Your task to perform on an android device: open a new tab in the chrome app Image 0: 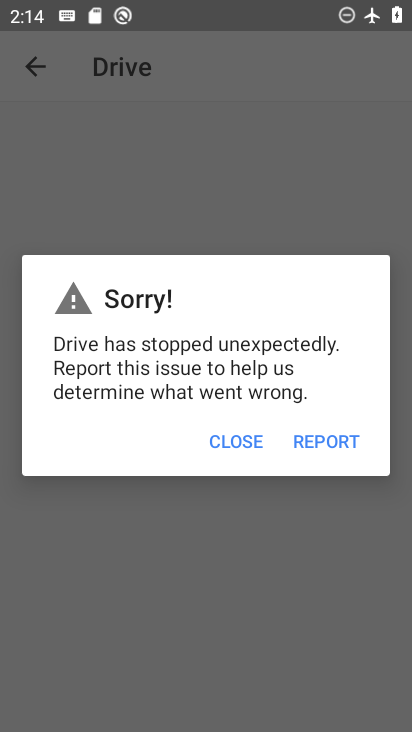
Step 0: click (169, 453)
Your task to perform on an android device: open a new tab in the chrome app Image 1: 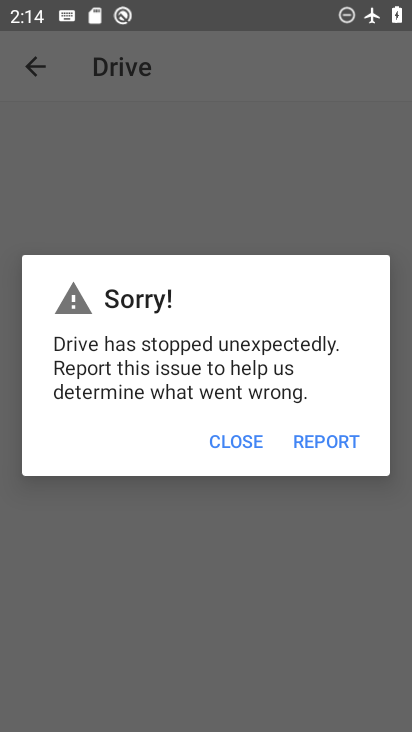
Step 1: press home button
Your task to perform on an android device: open a new tab in the chrome app Image 2: 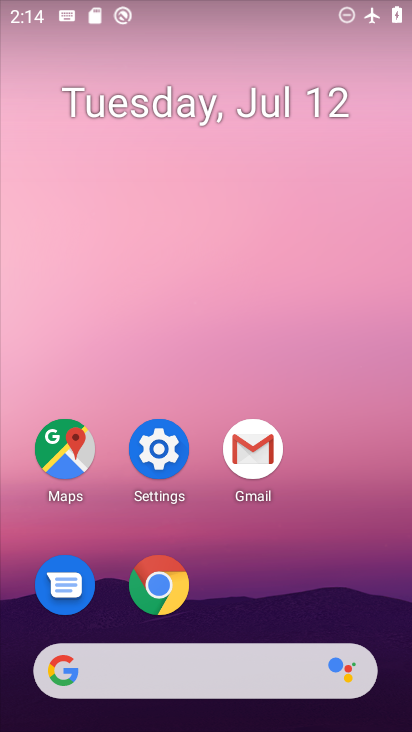
Step 2: click (166, 579)
Your task to perform on an android device: open a new tab in the chrome app Image 3: 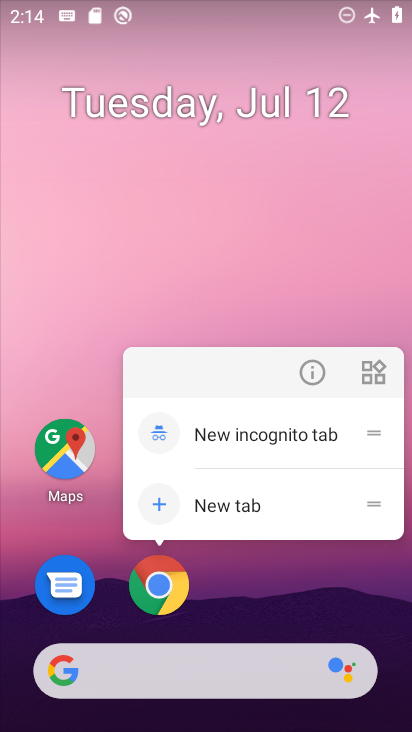
Step 3: click (188, 499)
Your task to perform on an android device: open a new tab in the chrome app Image 4: 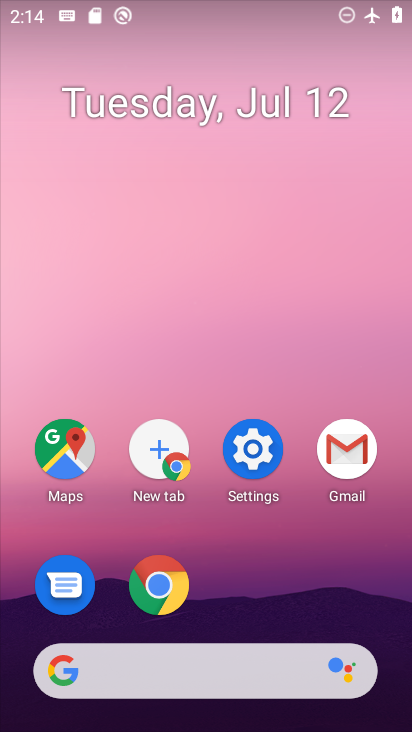
Step 4: click (176, 470)
Your task to perform on an android device: open a new tab in the chrome app Image 5: 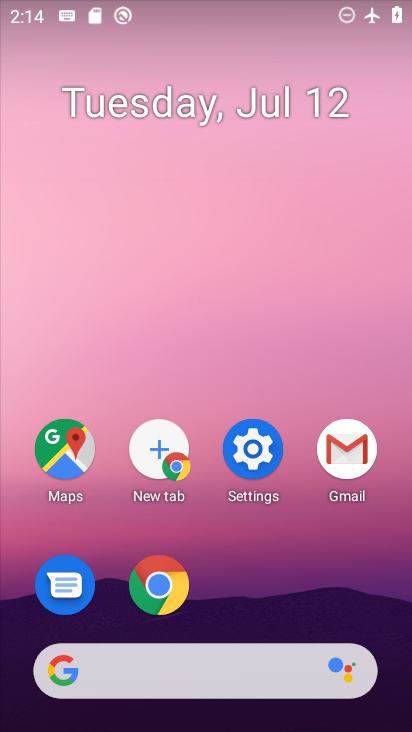
Step 5: click (145, 434)
Your task to perform on an android device: open a new tab in the chrome app Image 6: 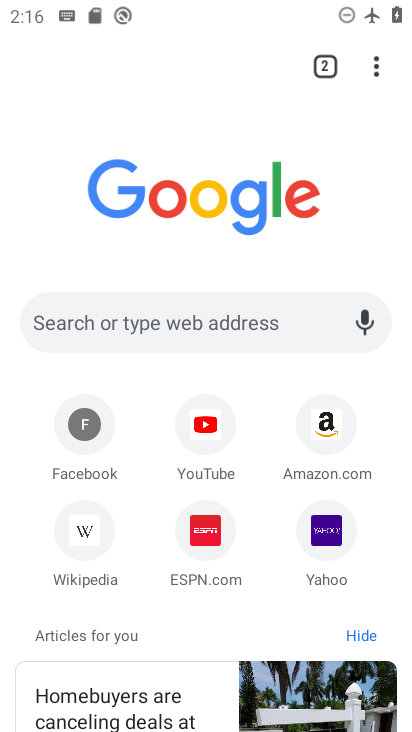
Step 6: task complete